Your task to perform on an android device: uninstall "Reddit" Image 0: 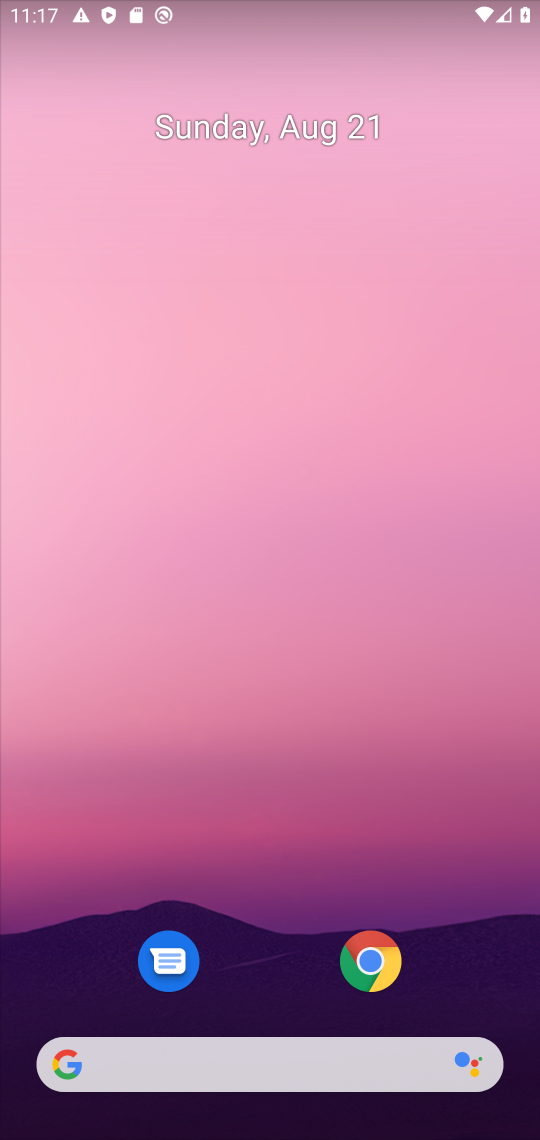
Step 0: drag from (454, 862) to (385, 46)
Your task to perform on an android device: uninstall "Reddit" Image 1: 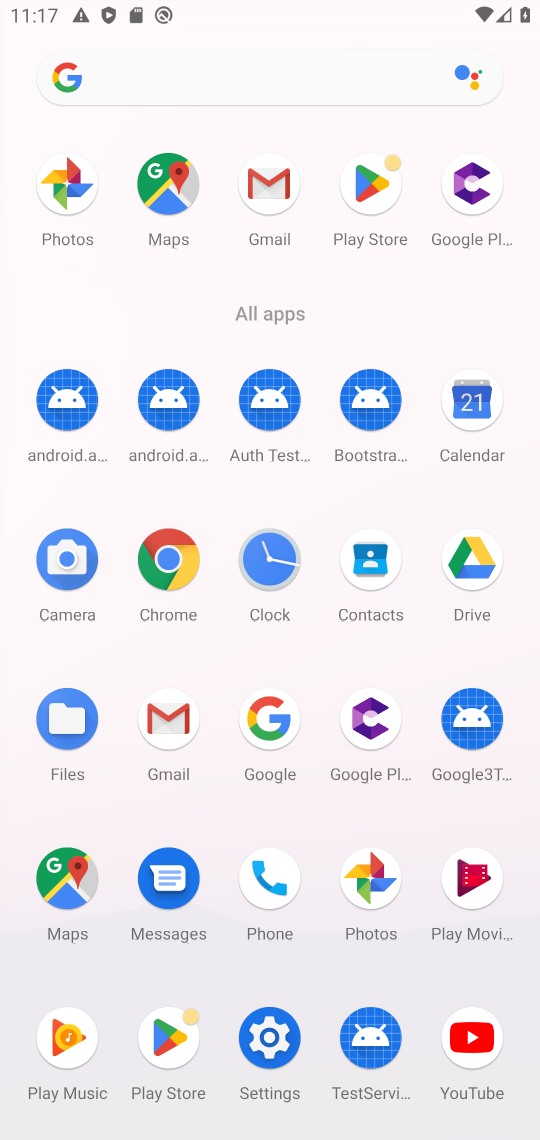
Step 1: click (377, 186)
Your task to perform on an android device: uninstall "Reddit" Image 2: 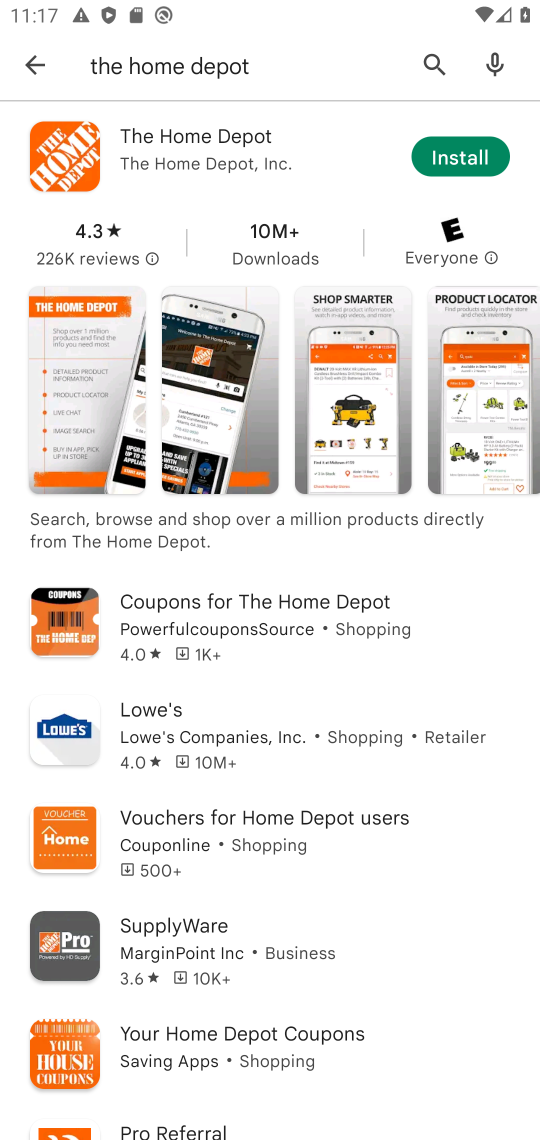
Step 2: press back button
Your task to perform on an android device: uninstall "Reddit" Image 3: 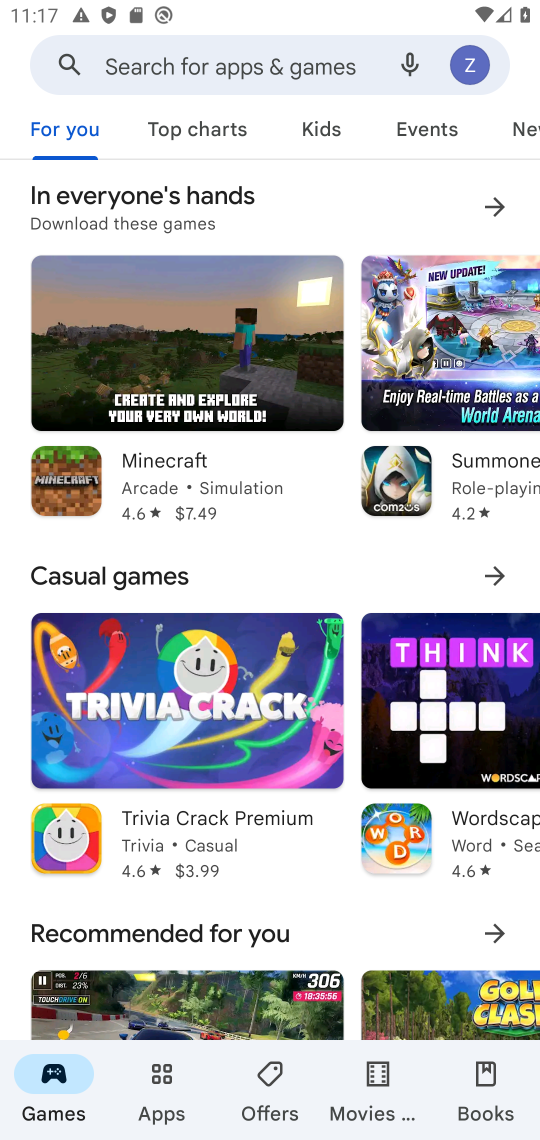
Step 3: click (282, 73)
Your task to perform on an android device: uninstall "Reddit" Image 4: 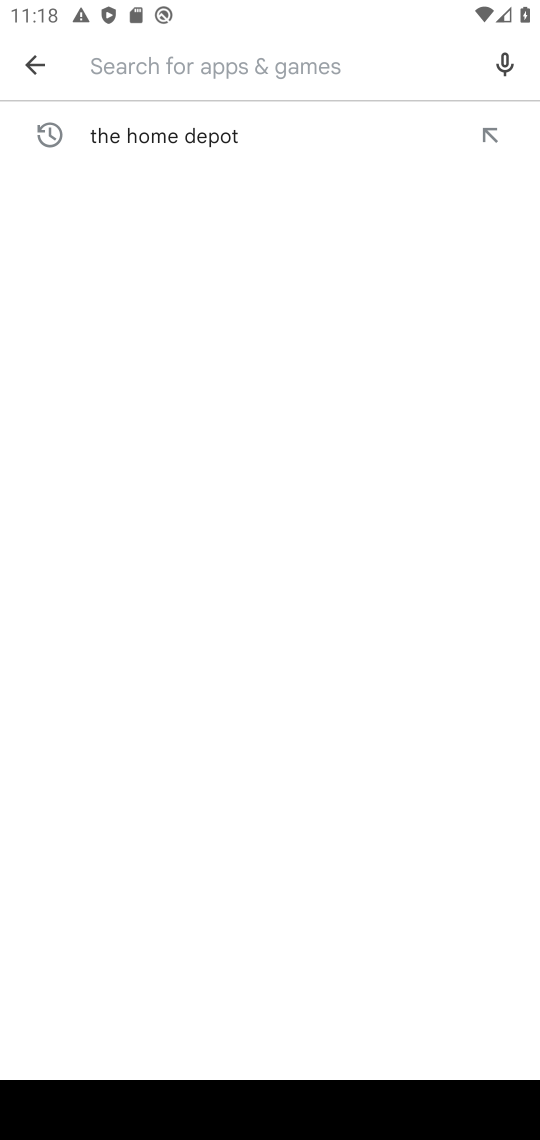
Step 4: type "reddit"
Your task to perform on an android device: uninstall "Reddit" Image 5: 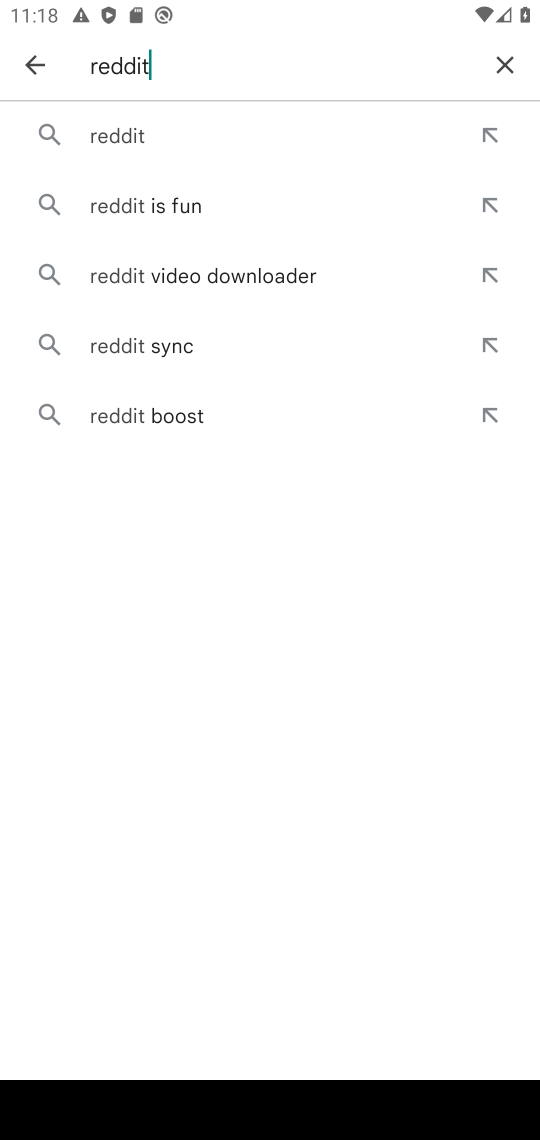
Step 5: click (167, 135)
Your task to perform on an android device: uninstall "Reddit" Image 6: 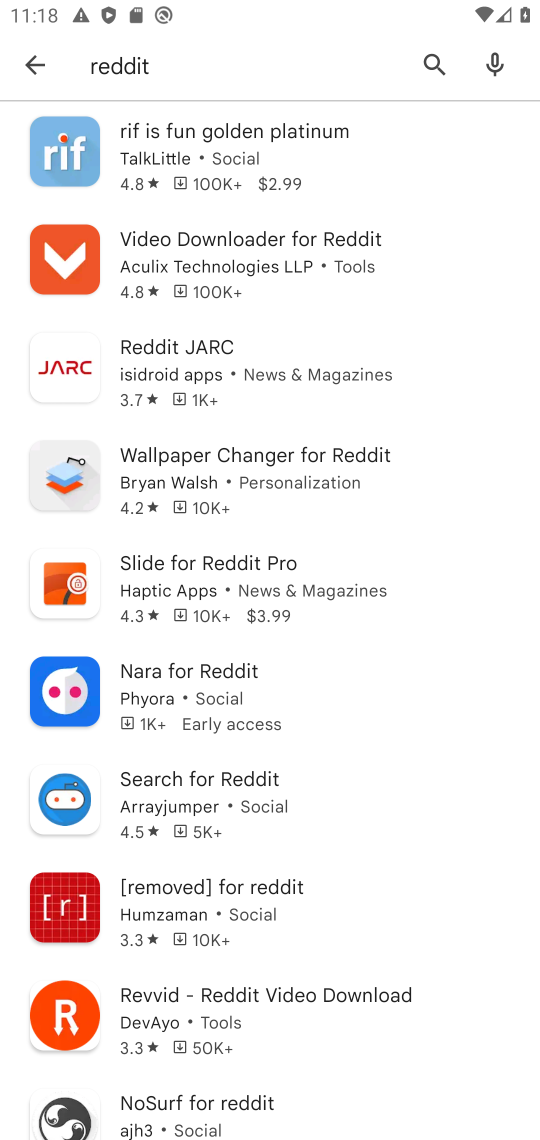
Step 6: task complete